Your task to perform on an android device: Go to Wikipedia Image 0: 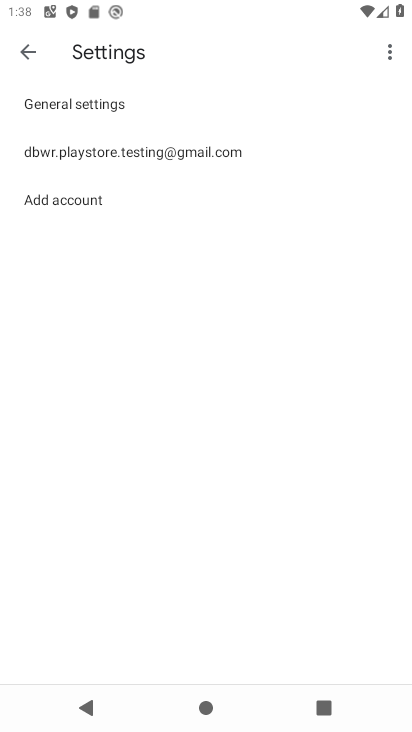
Step 0: press home button
Your task to perform on an android device: Go to Wikipedia Image 1: 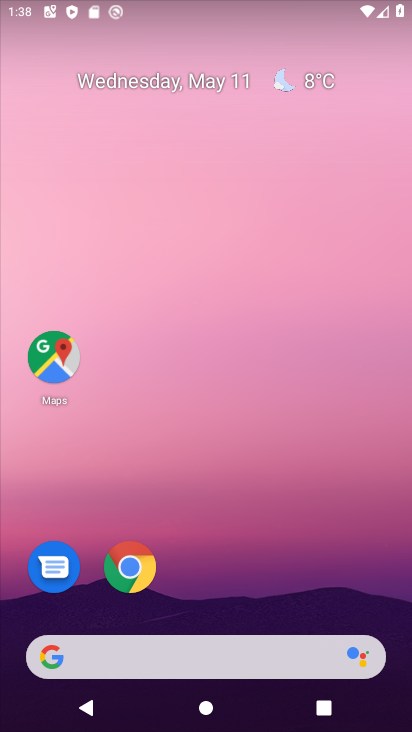
Step 1: click (132, 576)
Your task to perform on an android device: Go to Wikipedia Image 2: 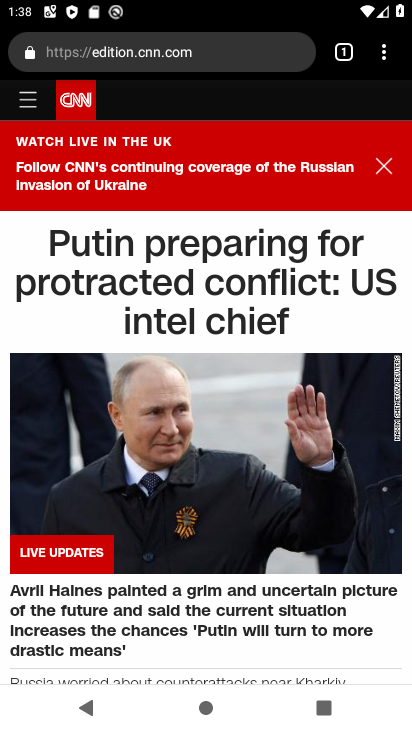
Step 2: click (349, 46)
Your task to perform on an android device: Go to Wikipedia Image 3: 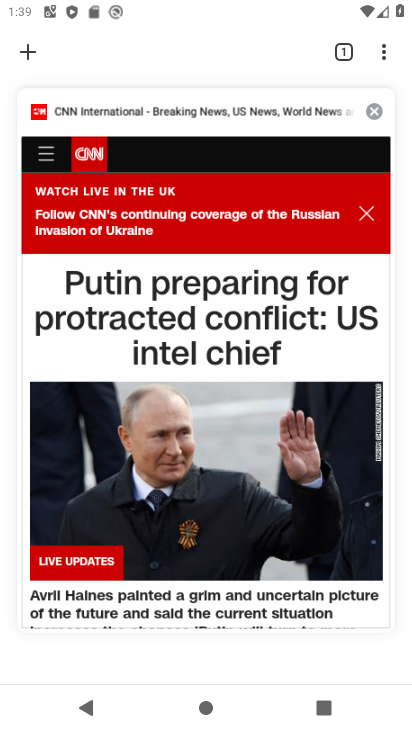
Step 3: click (375, 109)
Your task to perform on an android device: Go to Wikipedia Image 4: 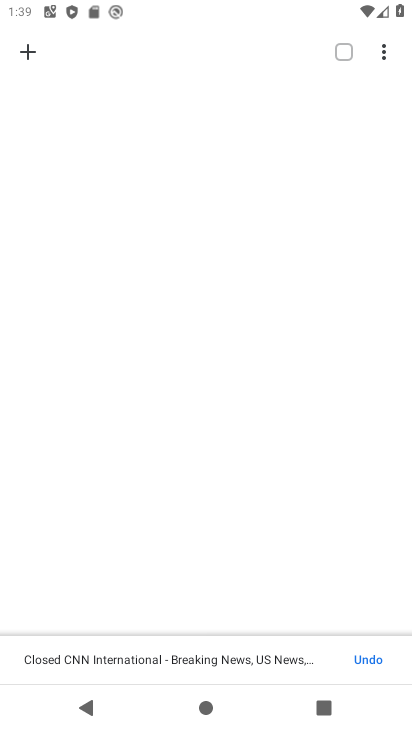
Step 4: click (32, 51)
Your task to perform on an android device: Go to Wikipedia Image 5: 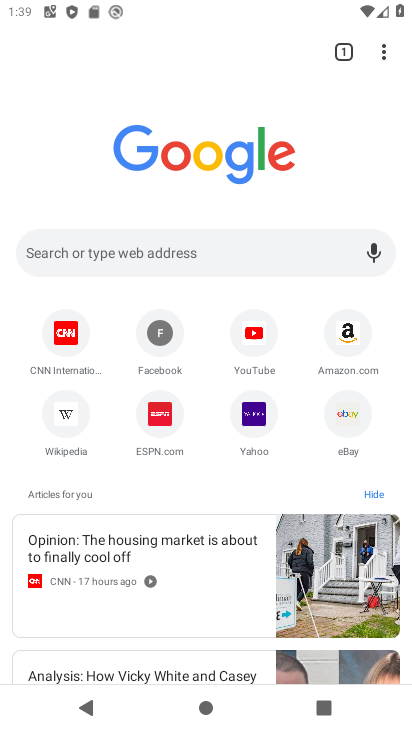
Step 5: click (72, 404)
Your task to perform on an android device: Go to Wikipedia Image 6: 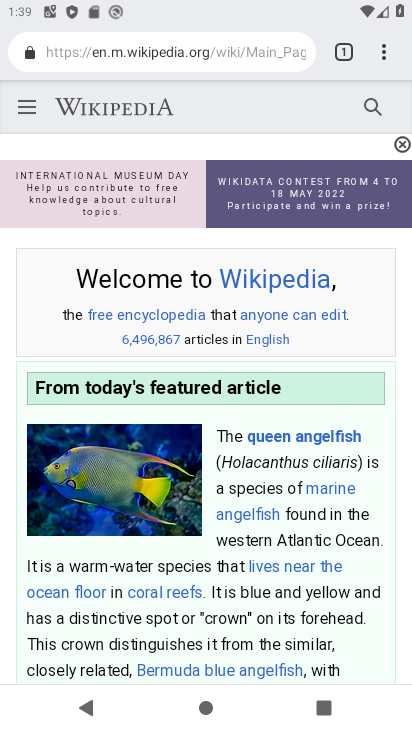
Step 6: task complete